Your task to perform on an android device: empty trash in the gmail app Image 0: 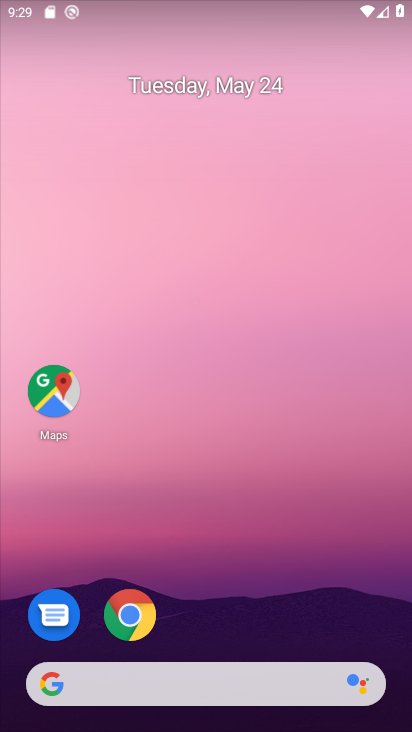
Step 0: drag from (372, 635) to (362, 242)
Your task to perform on an android device: empty trash in the gmail app Image 1: 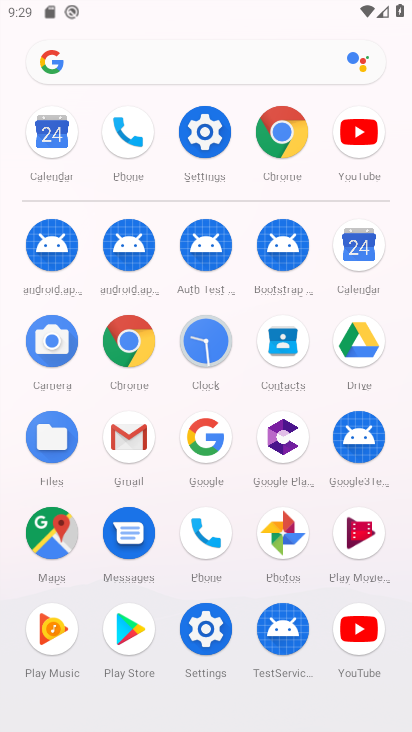
Step 1: click (121, 443)
Your task to perform on an android device: empty trash in the gmail app Image 2: 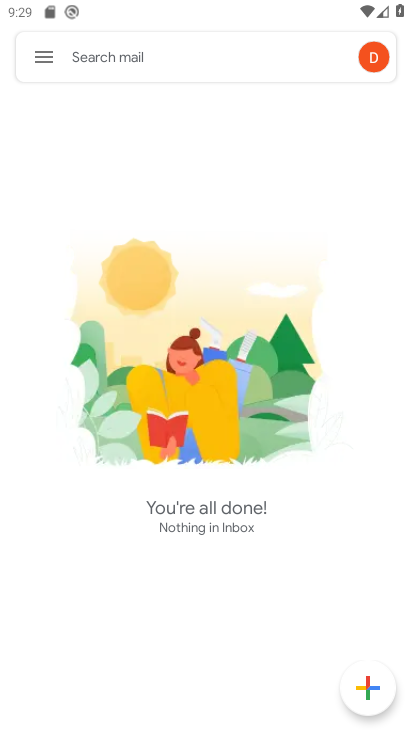
Step 2: click (38, 59)
Your task to perform on an android device: empty trash in the gmail app Image 3: 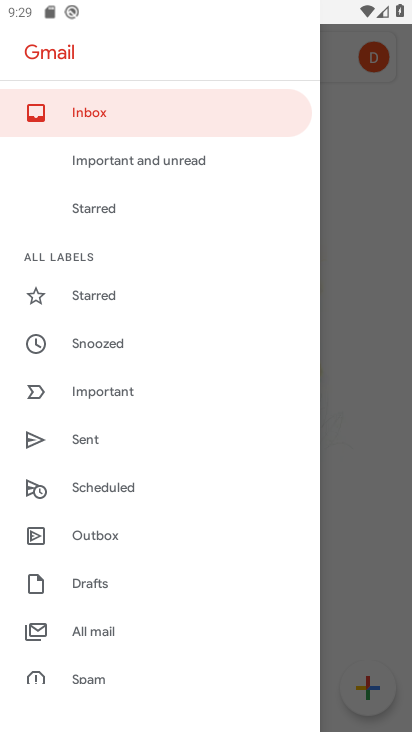
Step 3: drag from (241, 447) to (248, 369)
Your task to perform on an android device: empty trash in the gmail app Image 4: 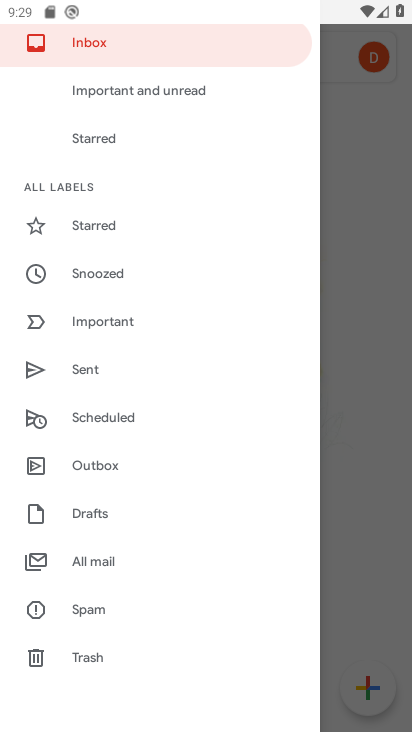
Step 4: drag from (260, 502) to (261, 404)
Your task to perform on an android device: empty trash in the gmail app Image 5: 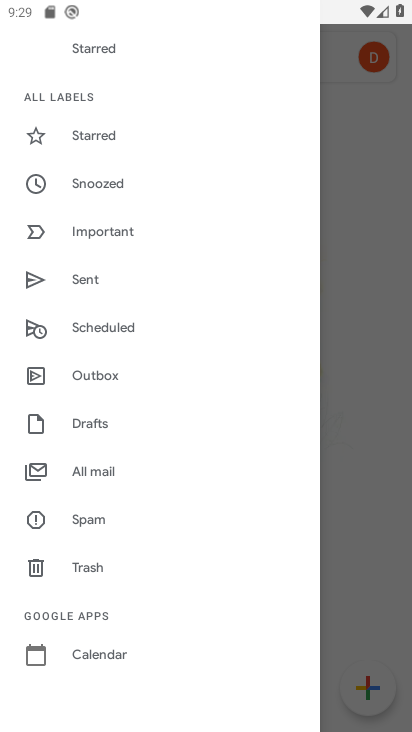
Step 5: drag from (250, 536) to (255, 417)
Your task to perform on an android device: empty trash in the gmail app Image 6: 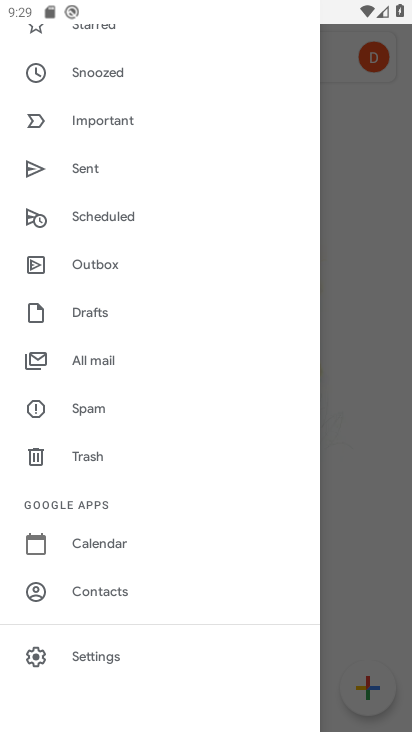
Step 6: drag from (235, 582) to (240, 424)
Your task to perform on an android device: empty trash in the gmail app Image 7: 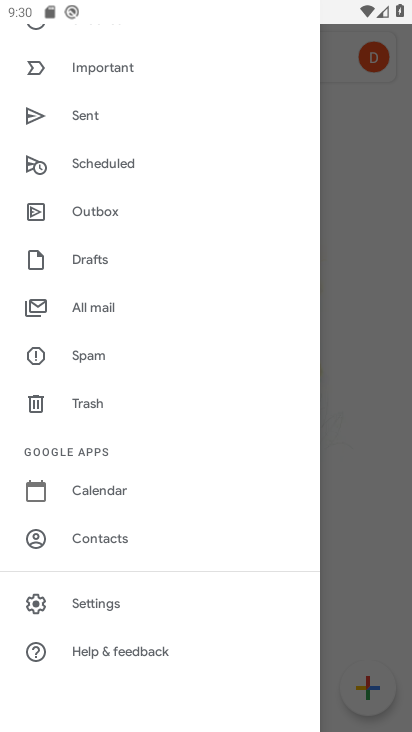
Step 7: click (125, 401)
Your task to perform on an android device: empty trash in the gmail app Image 8: 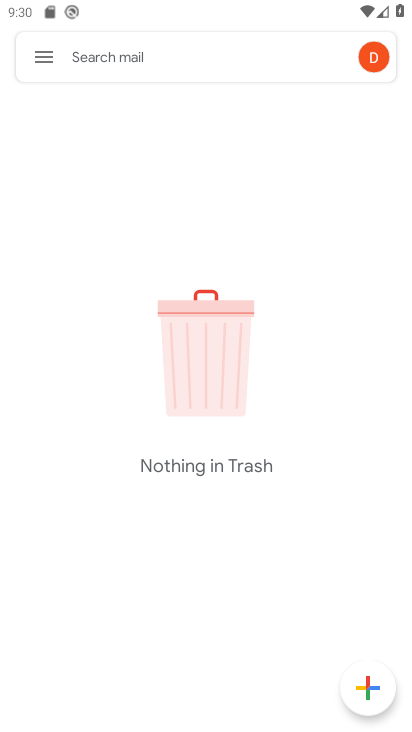
Step 8: task complete